Your task to perform on an android device: How do I get to the nearest Home Depot? Image 0: 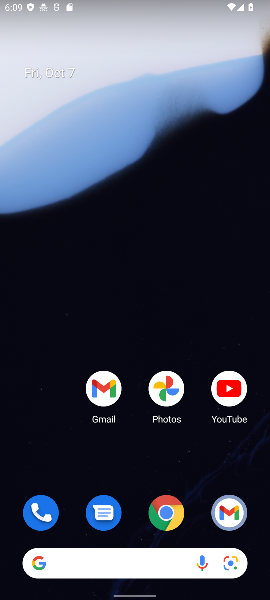
Step 0: click (135, 554)
Your task to perform on an android device: How do I get to the nearest Home Depot? Image 1: 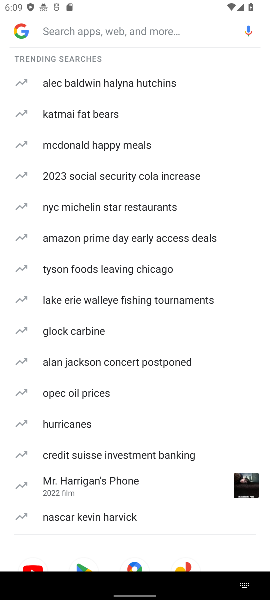
Step 1: type "How do I get to the nearest Home Depot"
Your task to perform on an android device: How do I get to the nearest Home Depot? Image 2: 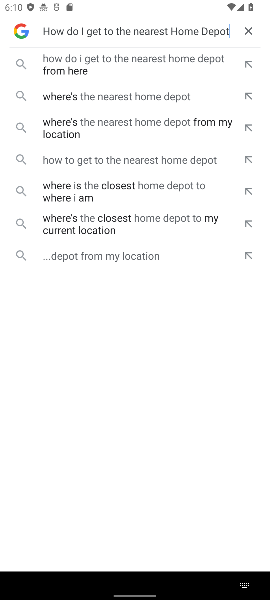
Step 2: click (117, 96)
Your task to perform on an android device: How do I get to the nearest Home Depot? Image 3: 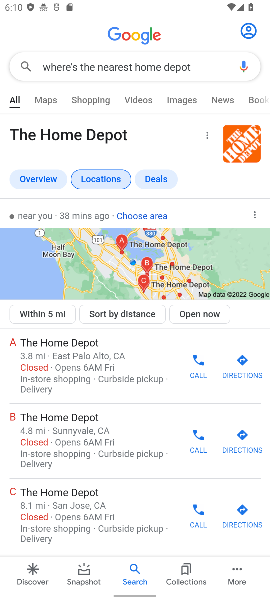
Step 3: task complete